Your task to perform on an android device: Open notification settings Image 0: 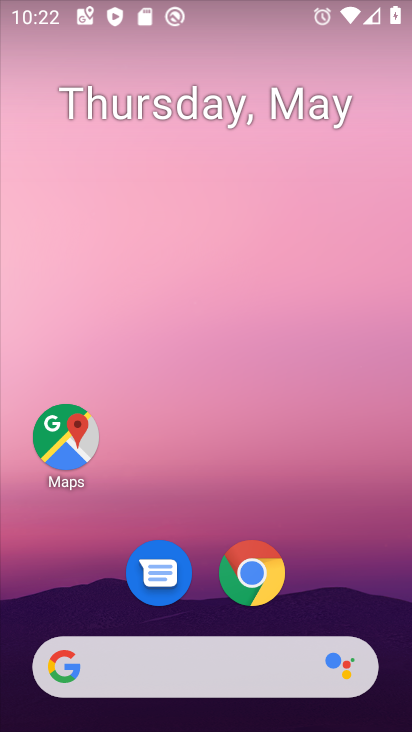
Step 0: drag from (206, 590) to (256, 161)
Your task to perform on an android device: Open notification settings Image 1: 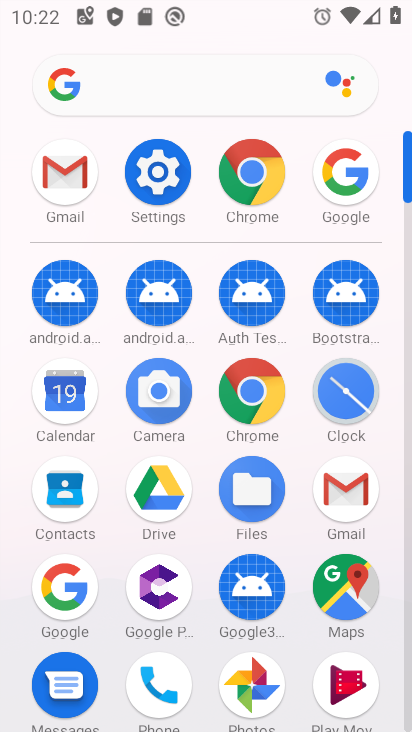
Step 1: click (156, 179)
Your task to perform on an android device: Open notification settings Image 2: 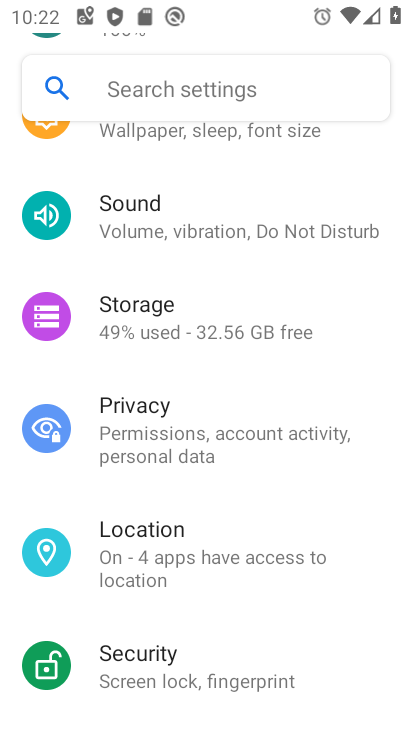
Step 2: drag from (259, 336) to (287, 541)
Your task to perform on an android device: Open notification settings Image 3: 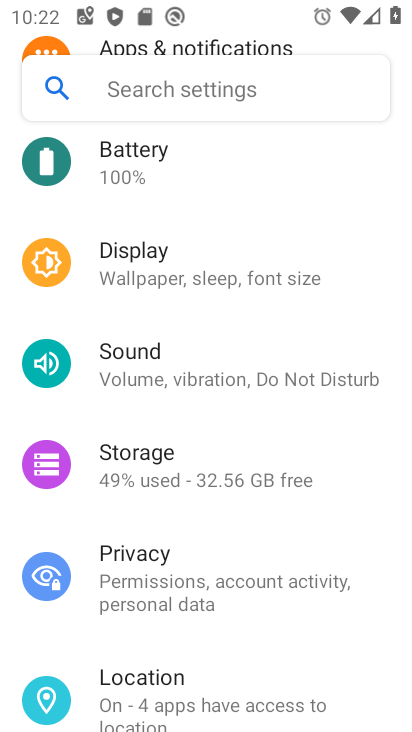
Step 3: drag from (211, 245) to (210, 421)
Your task to perform on an android device: Open notification settings Image 4: 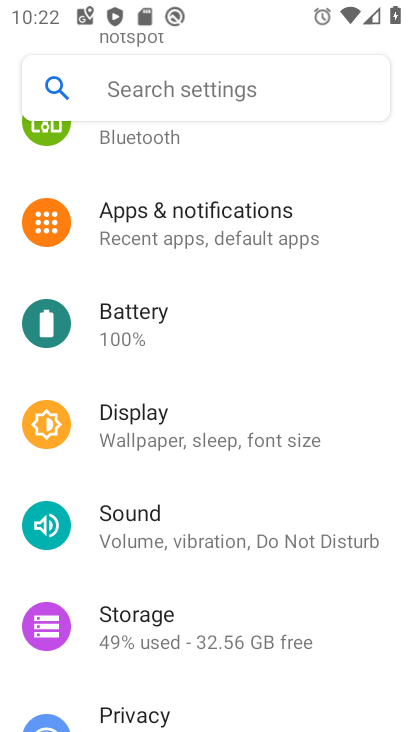
Step 4: click (204, 245)
Your task to perform on an android device: Open notification settings Image 5: 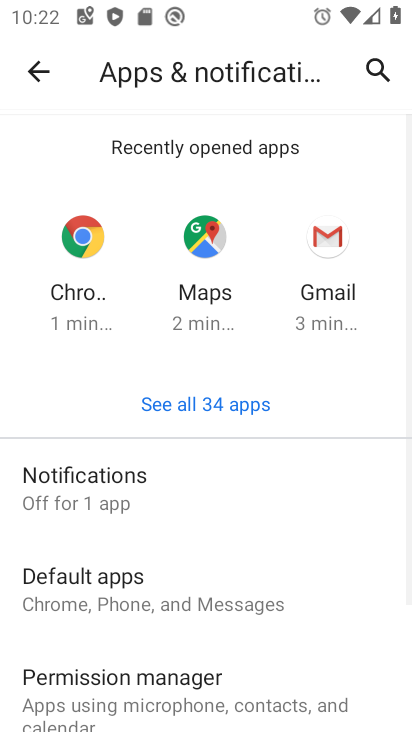
Step 5: click (152, 478)
Your task to perform on an android device: Open notification settings Image 6: 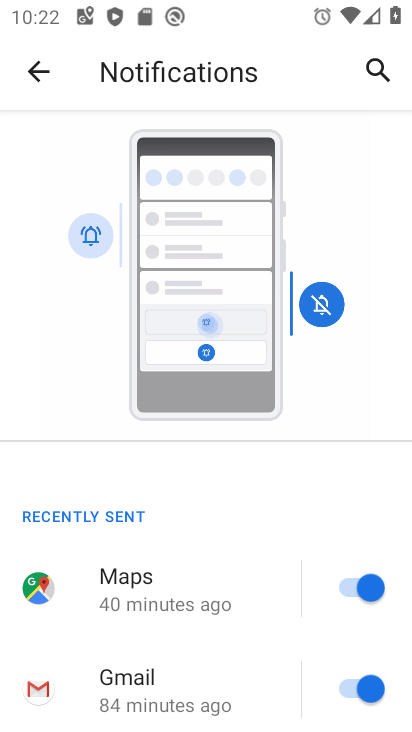
Step 6: task complete